Your task to perform on an android device: toggle translation in the chrome app Image 0: 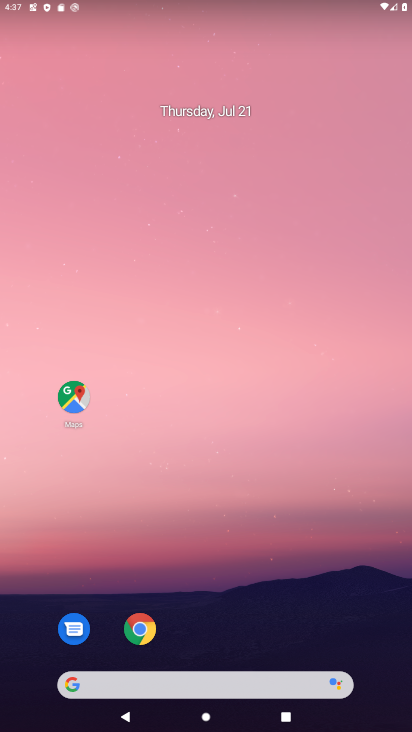
Step 0: click (139, 623)
Your task to perform on an android device: toggle translation in the chrome app Image 1: 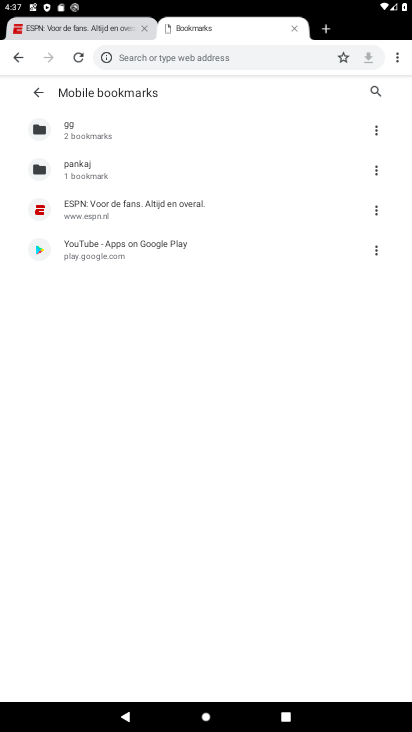
Step 1: click (398, 63)
Your task to perform on an android device: toggle translation in the chrome app Image 2: 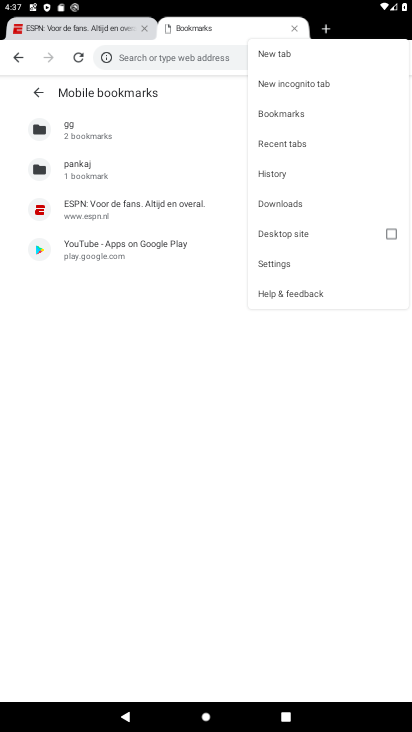
Step 2: click (292, 258)
Your task to perform on an android device: toggle translation in the chrome app Image 3: 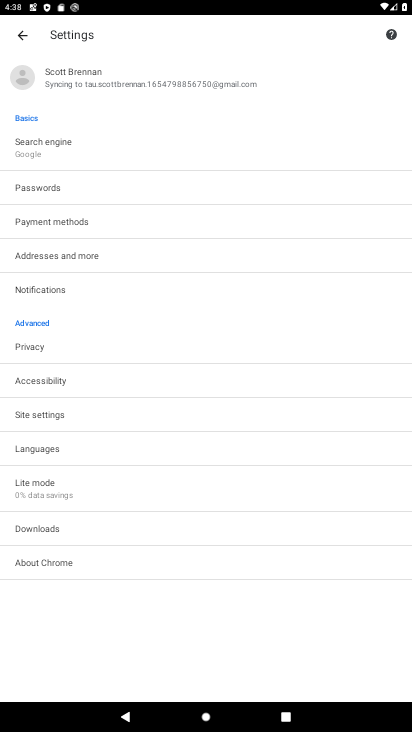
Step 3: click (56, 444)
Your task to perform on an android device: toggle translation in the chrome app Image 4: 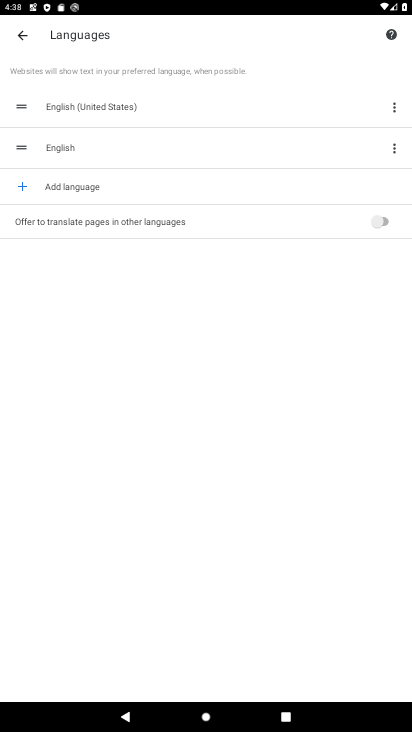
Step 4: click (384, 215)
Your task to perform on an android device: toggle translation in the chrome app Image 5: 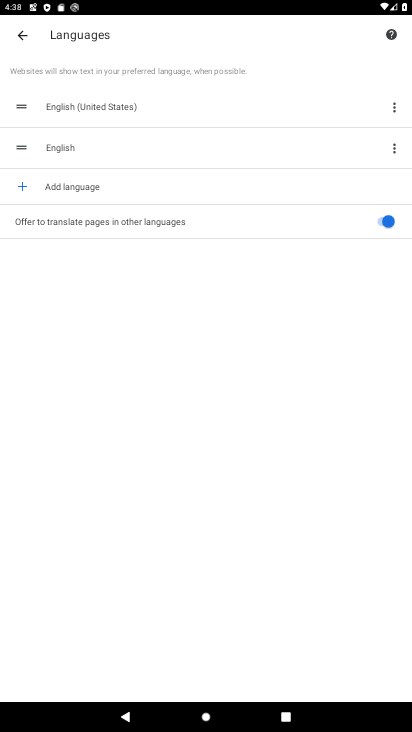
Step 5: task complete